Your task to perform on an android device: Find coffee shops on Maps Image 0: 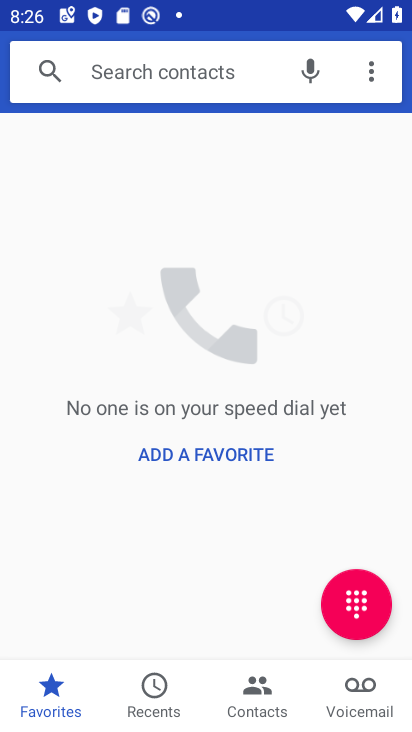
Step 0: press home button
Your task to perform on an android device: Find coffee shops on Maps Image 1: 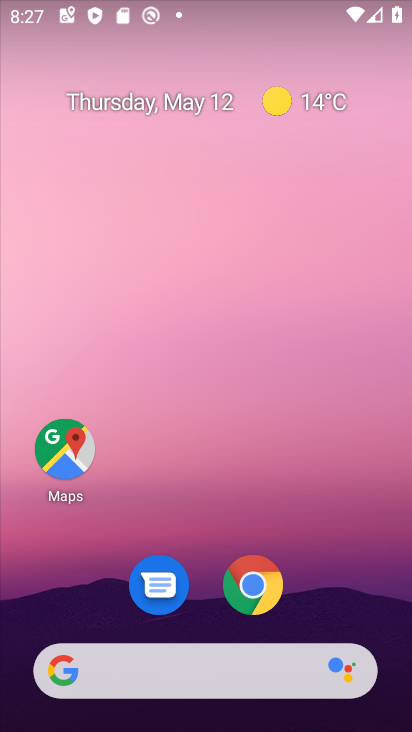
Step 1: click (73, 438)
Your task to perform on an android device: Find coffee shops on Maps Image 2: 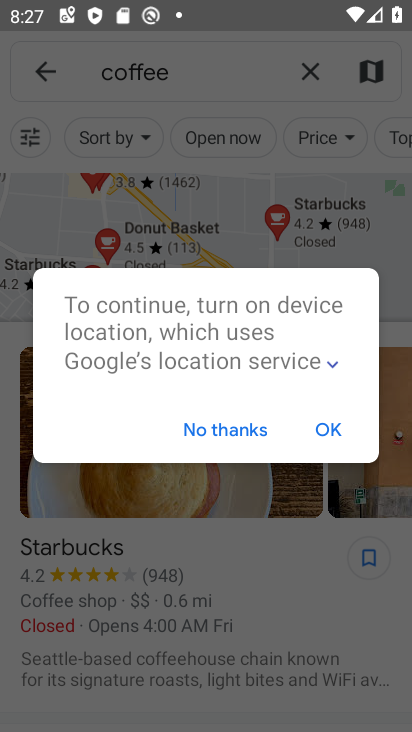
Step 2: click (203, 422)
Your task to perform on an android device: Find coffee shops on Maps Image 3: 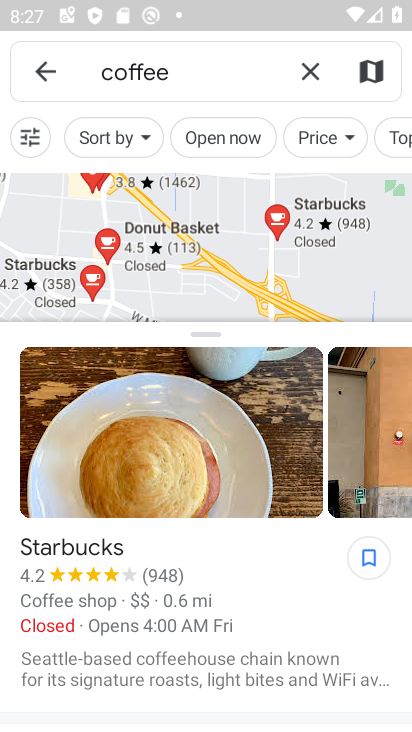
Step 3: task complete